Your task to perform on an android device: stop showing notifications on the lock screen Image 0: 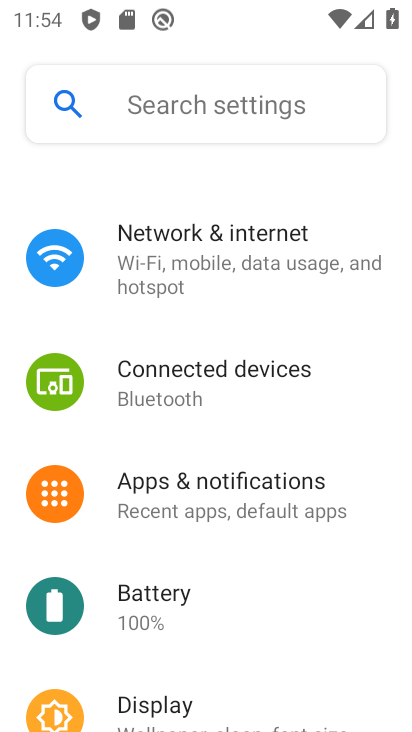
Step 0: press home button
Your task to perform on an android device: stop showing notifications on the lock screen Image 1: 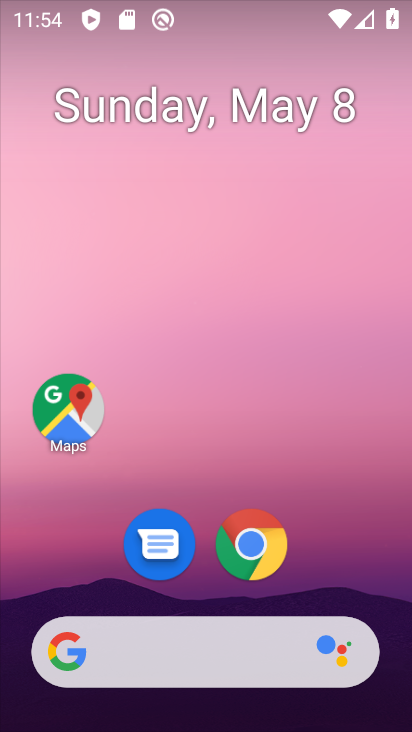
Step 1: drag from (320, 493) to (319, 0)
Your task to perform on an android device: stop showing notifications on the lock screen Image 2: 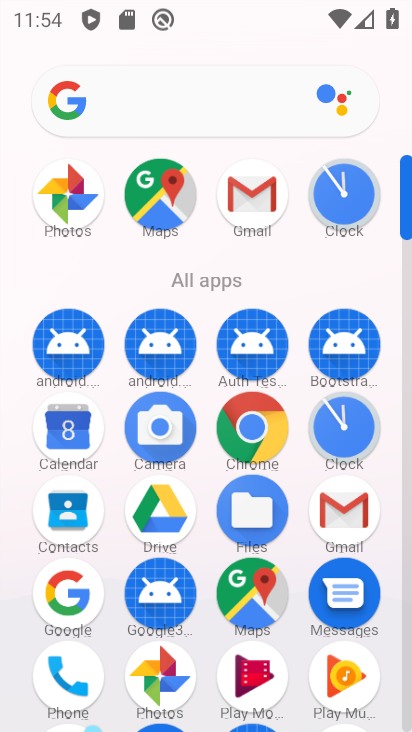
Step 2: drag from (391, 513) to (359, 42)
Your task to perform on an android device: stop showing notifications on the lock screen Image 3: 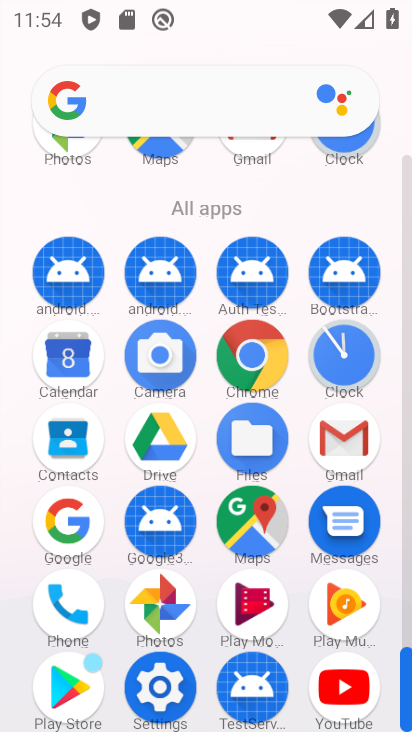
Step 3: click (143, 681)
Your task to perform on an android device: stop showing notifications on the lock screen Image 4: 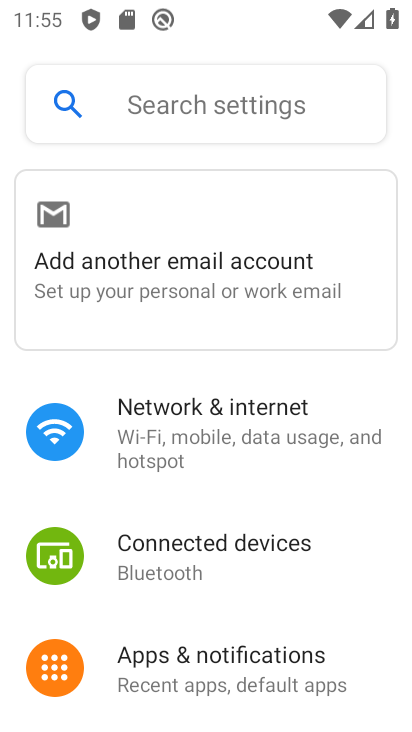
Step 4: drag from (209, 637) to (133, 83)
Your task to perform on an android device: stop showing notifications on the lock screen Image 5: 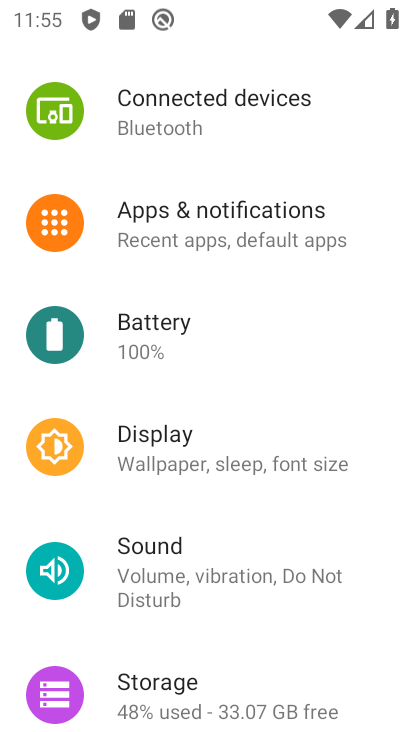
Step 5: drag from (164, 629) to (211, 108)
Your task to perform on an android device: stop showing notifications on the lock screen Image 6: 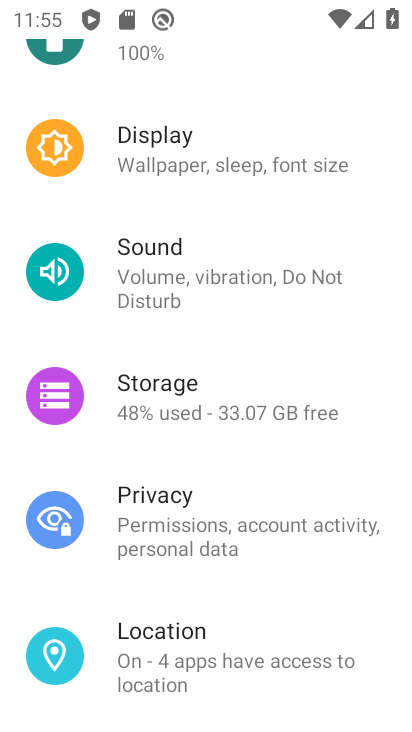
Step 6: drag from (223, 201) to (235, 476)
Your task to perform on an android device: stop showing notifications on the lock screen Image 7: 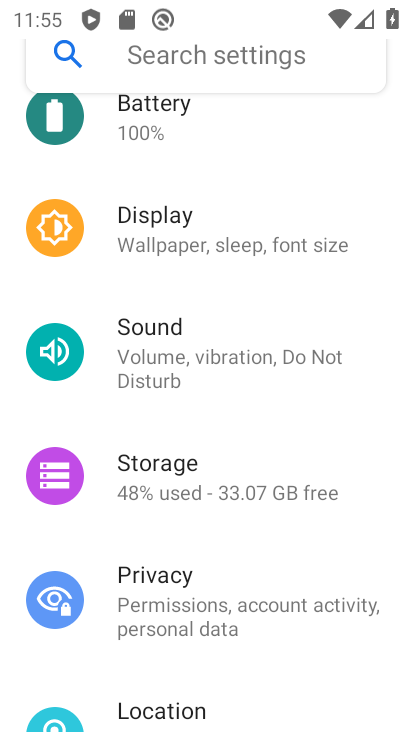
Step 7: drag from (137, 222) to (191, 641)
Your task to perform on an android device: stop showing notifications on the lock screen Image 8: 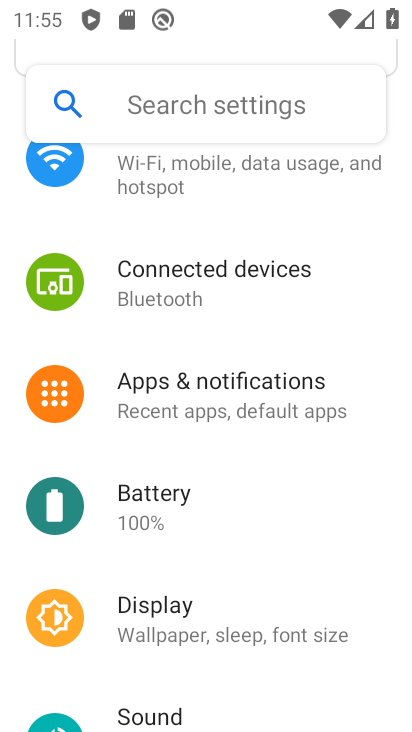
Step 8: click (189, 409)
Your task to perform on an android device: stop showing notifications on the lock screen Image 9: 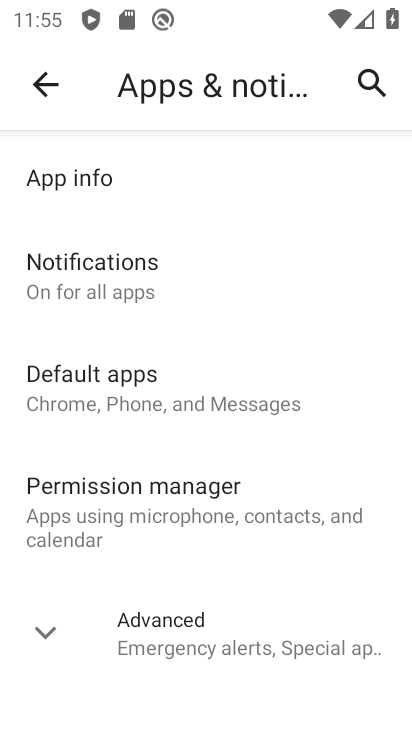
Step 9: click (127, 261)
Your task to perform on an android device: stop showing notifications on the lock screen Image 10: 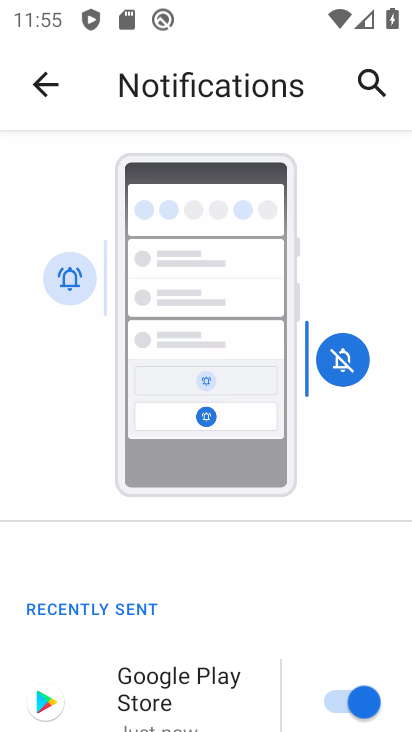
Step 10: drag from (227, 618) to (224, 150)
Your task to perform on an android device: stop showing notifications on the lock screen Image 11: 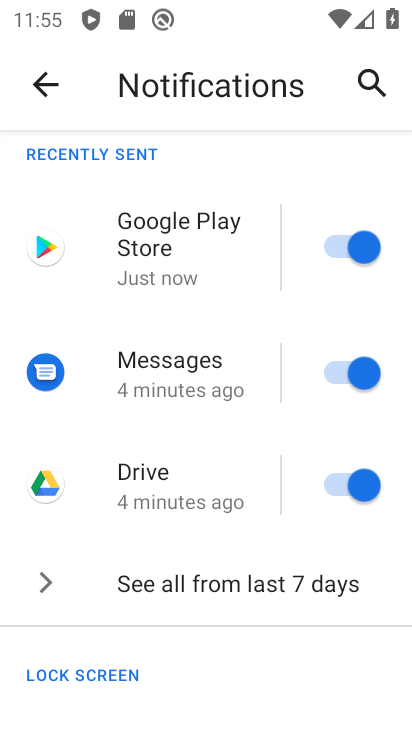
Step 11: drag from (202, 623) to (154, 125)
Your task to perform on an android device: stop showing notifications on the lock screen Image 12: 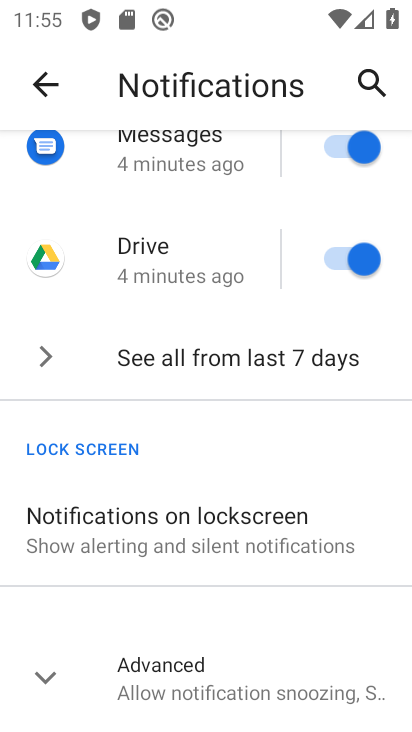
Step 12: click (87, 548)
Your task to perform on an android device: stop showing notifications on the lock screen Image 13: 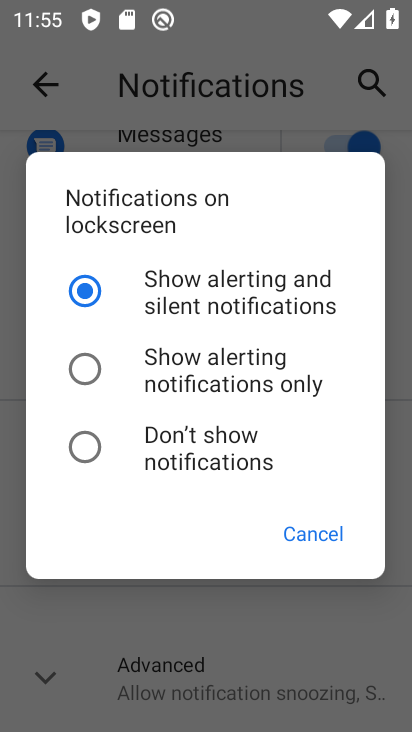
Step 13: click (72, 445)
Your task to perform on an android device: stop showing notifications on the lock screen Image 14: 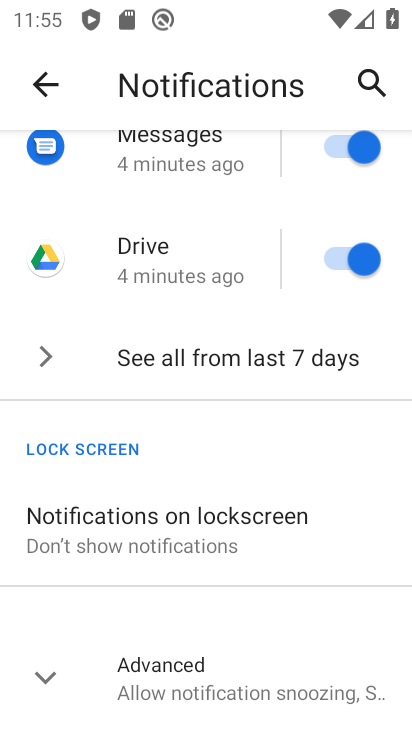
Step 14: task complete